Your task to perform on an android device: Open the Play Movies app and select the watchlist tab. Image 0: 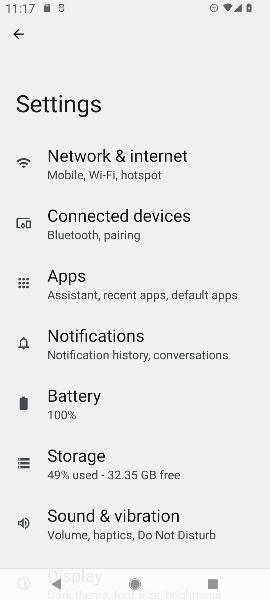
Step 0: press back button
Your task to perform on an android device: Open the Play Movies app and select the watchlist tab. Image 1: 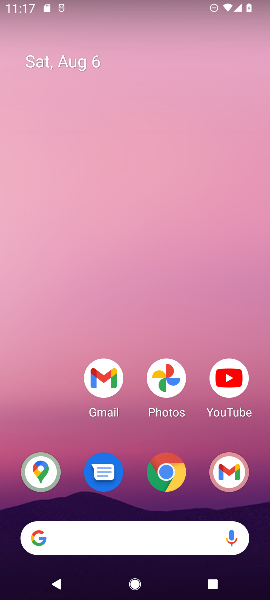
Step 1: drag from (141, 502) to (83, 188)
Your task to perform on an android device: Open the Play Movies app and select the watchlist tab. Image 2: 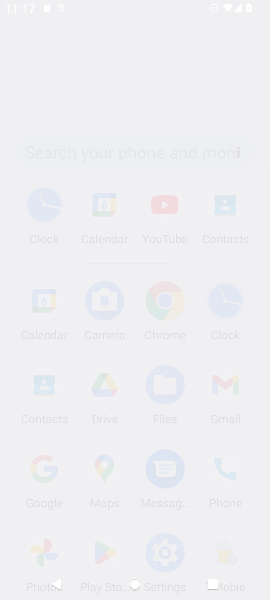
Step 2: drag from (176, 434) to (145, 207)
Your task to perform on an android device: Open the Play Movies app and select the watchlist tab. Image 3: 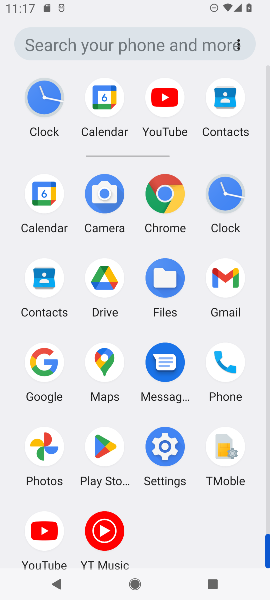
Step 3: drag from (187, 523) to (178, 247)
Your task to perform on an android device: Open the Play Movies app and select the watchlist tab. Image 4: 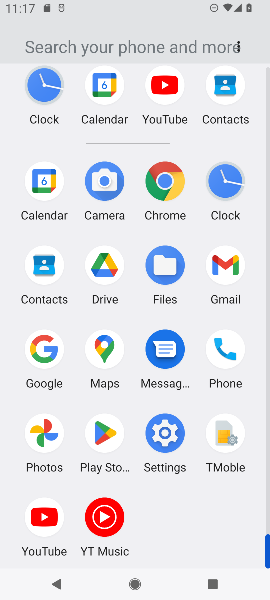
Step 4: drag from (120, 324) to (139, 538)
Your task to perform on an android device: Open the Play Movies app and select the watchlist tab. Image 5: 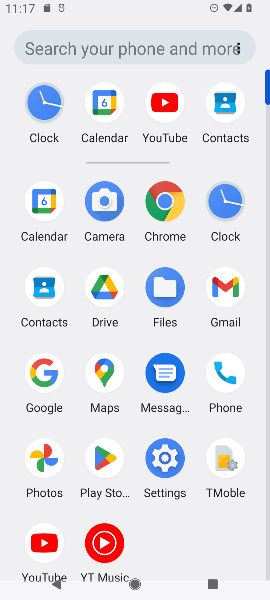
Step 5: drag from (115, 222) to (130, 379)
Your task to perform on an android device: Open the Play Movies app and select the watchlist tab. Image 6: 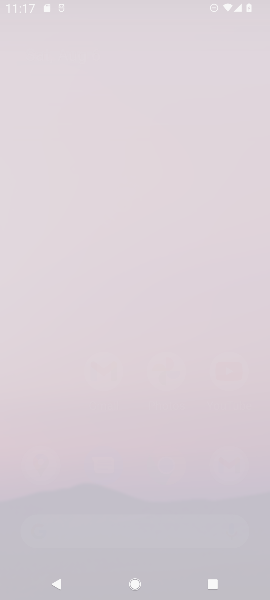
Step 6: click (185, 408)
Your task to perform on an android device: Open the Play Movies app and select the watchlist tab. Image 7: 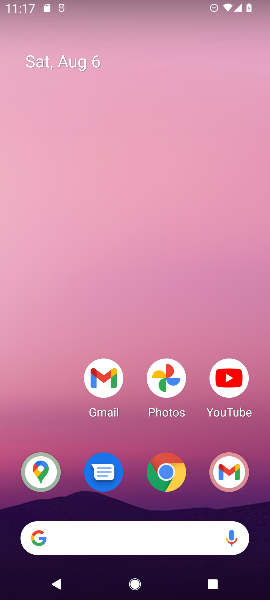
Step 7: task complete